Your task to perform on an android device: change the upload size in google photos Image 0: 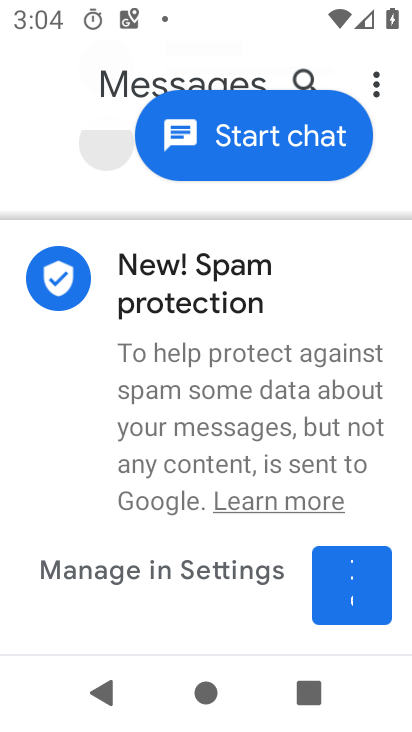
Step 0: press home button
Your task to perform on an android device: change the upload size in google photos Image 1: 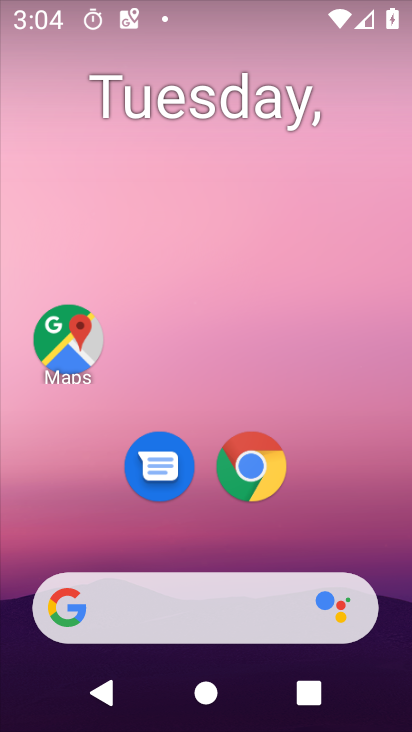
Step 1: drag from (350, 545) to (346, 140)
Your task to perform on an android device: change the upload size in google photos Image 2: 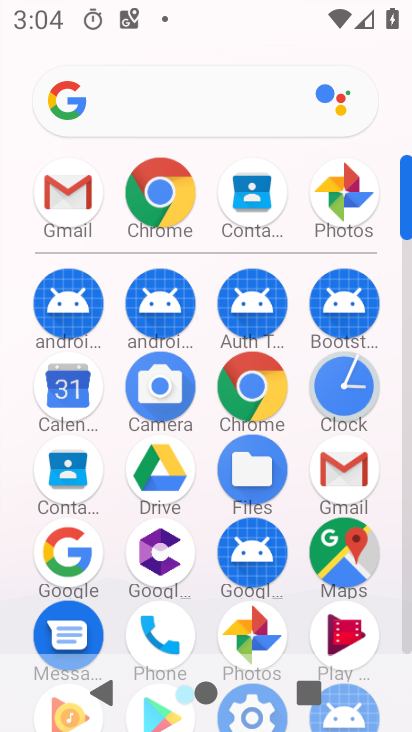
Step 2: click (265, 632)
Your task to perform on an android device: change the upload size in google photos Image 3: 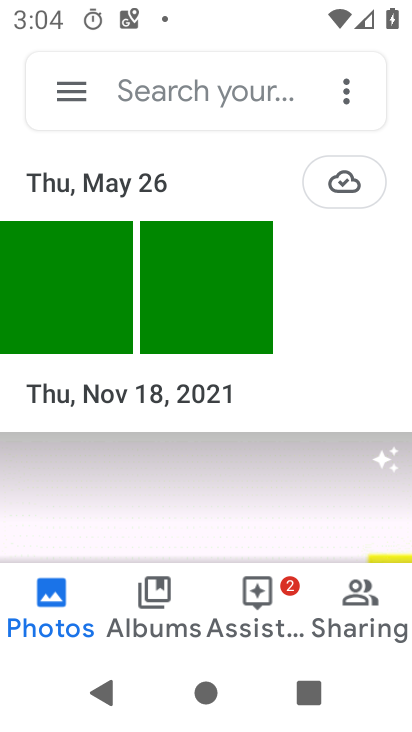
Step 3: click (81, 87)
Your task to perform on an android device: change the upload size in google photos Image 4: 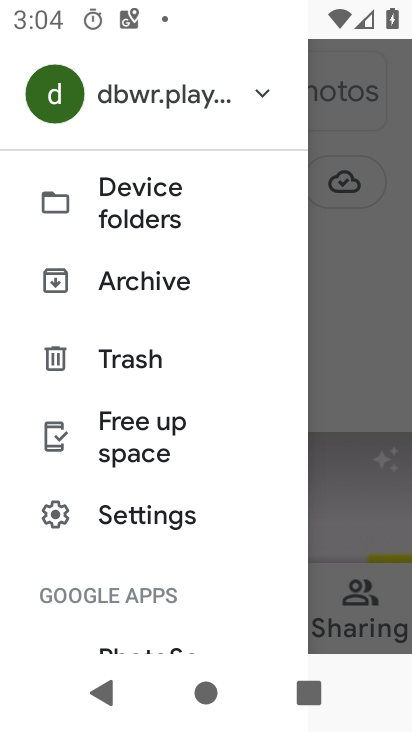
Step 4: click (208, 516)
Your task to perform on an android device: change the upload size in google photos Image 5: 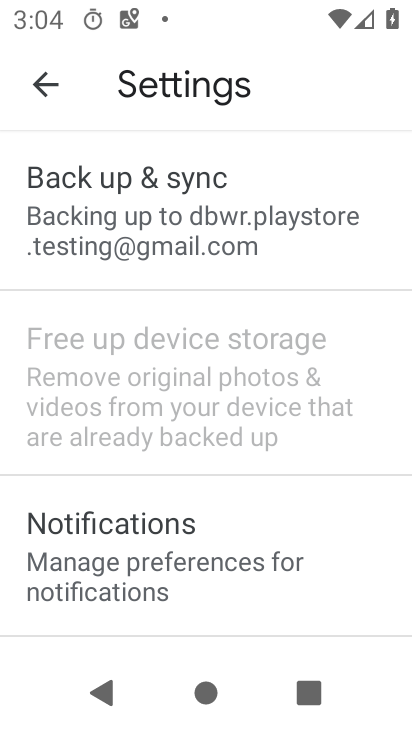
Step 5: click (248, 220)
Your task to perform on an android device: change the upload size in google photos Image 6: 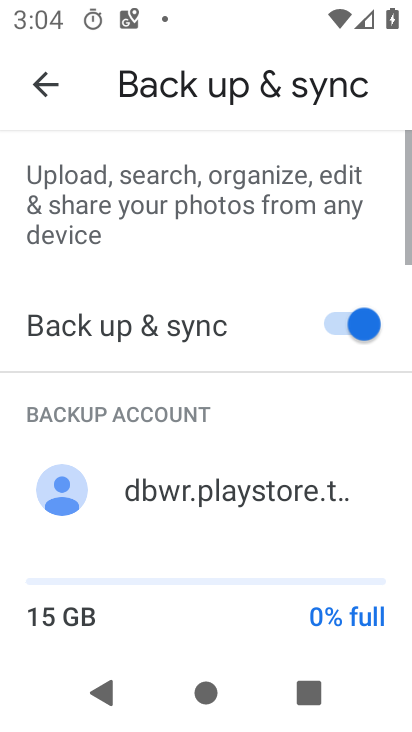
Step 6: drag from (284, 419) to (292, 279)
Your task to perform on an android device: change the upload size in google photos Image 7: 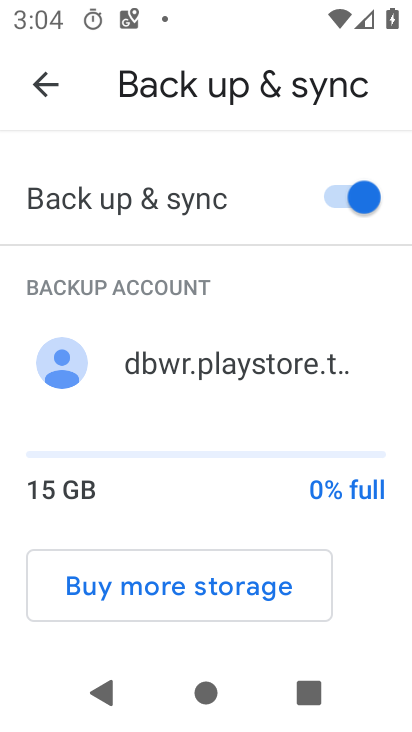
Step 7: drag from (272, 454) to (271, 270)
Your task to perform on an android device: change the upload size in google photos Image 8: 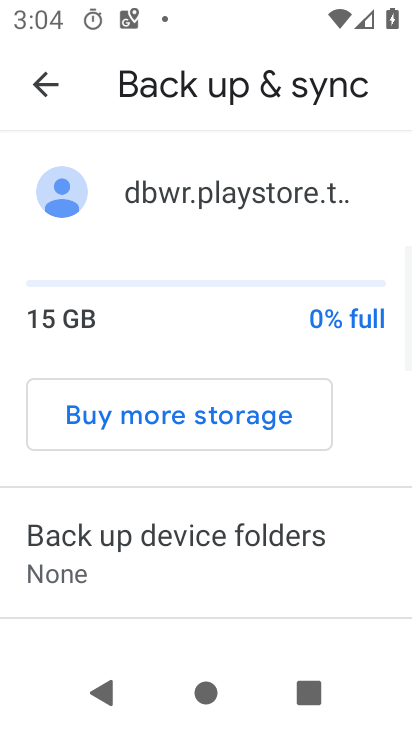
Step 8: drag from (289, 575) to (280, 375)
Your task to perform on an android device: change the upload size in google photos Image 9: 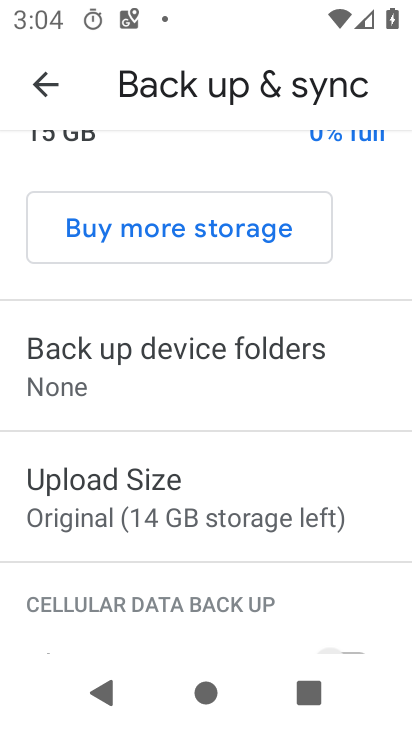
Step 9: click (254, 511)
Your task to perform on an android device: change the upload size in google photos Image 10: 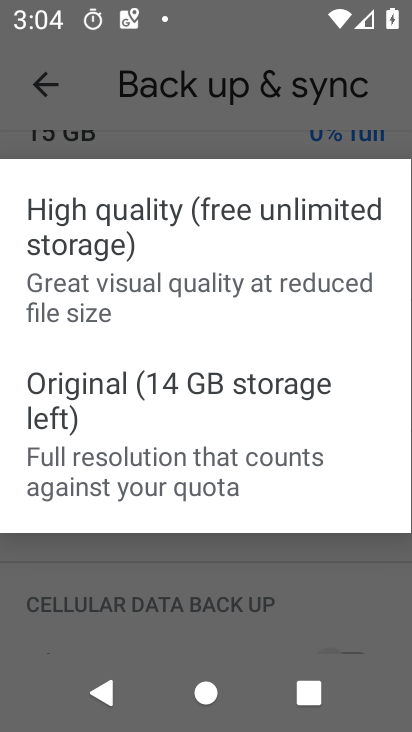
Step 10: click (228, 282)
Your task to perform on an android device: change the upload size in google photos Image 11: 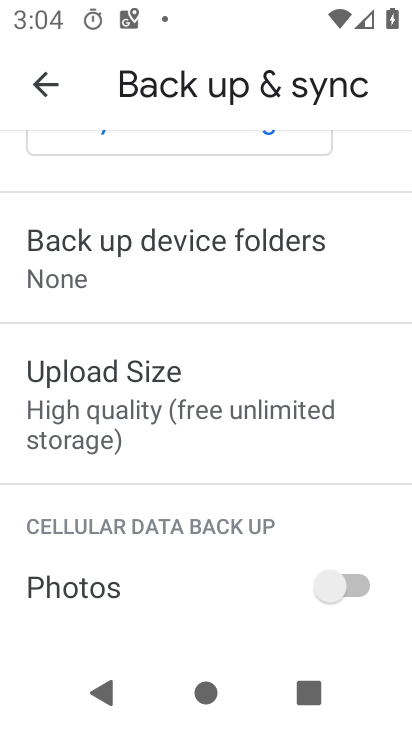
Step 11: task complete